Your task to perform on an android device: Open Reddit.com Image 0: 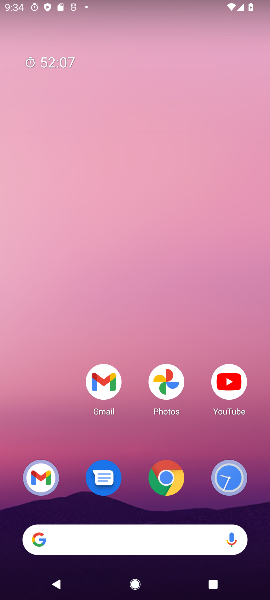
Step 0: press home button
Your task to perform on an android device: Open Reddit.com Image 1: 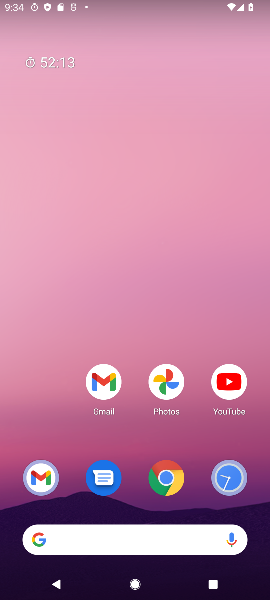
Step 1: click (154, 482)
Your task to perform on an android device: Open Reddit.com Image 2: 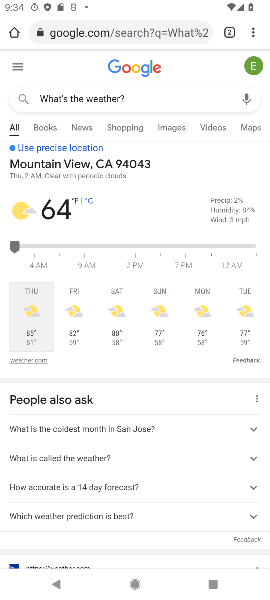
Step 2: click (58, 37)
Your task to perform on an android device: Open Reddit.com Image 3: 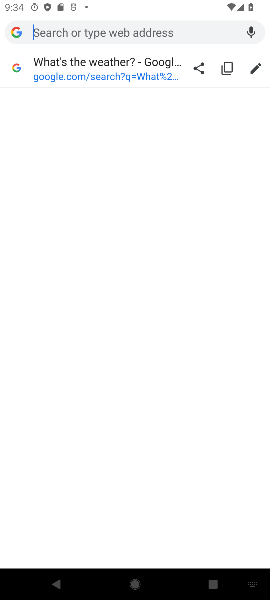
Step 3: type "Reddit.com"
Your task to perform on an android device: Open Reddit.com Image 4: 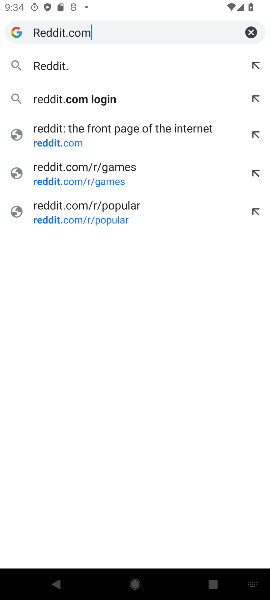
Step 4: type ""
Your task to perform on an android device: Open Reddit.com Image 5: 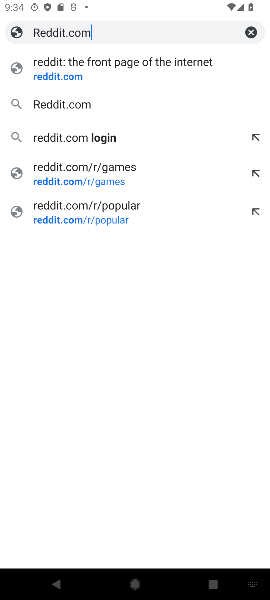
Step 5: click (62, 62)
Your task to perform on an android device: Open Reddit.com Image 6: 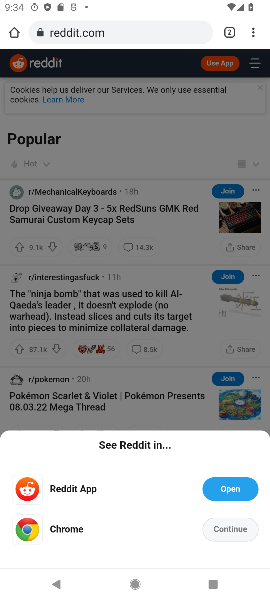
Step 6: task complete